Your task to perform on an android device: toggle wifi Image 0: 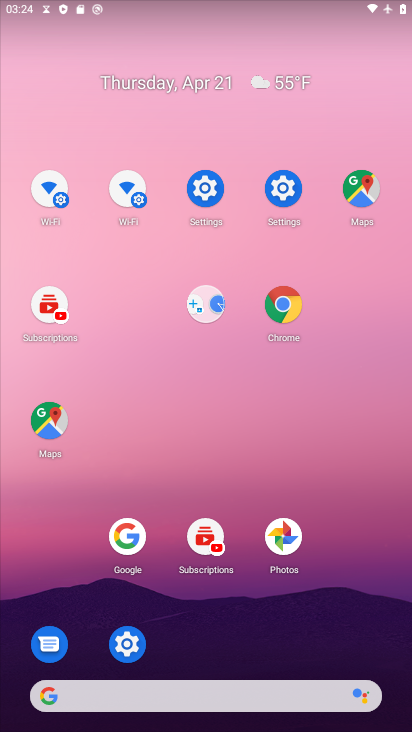
Step 0: drag from (241, 507) to (83, 86)
Your task to perform on an android device: toggle wifi Image 1: 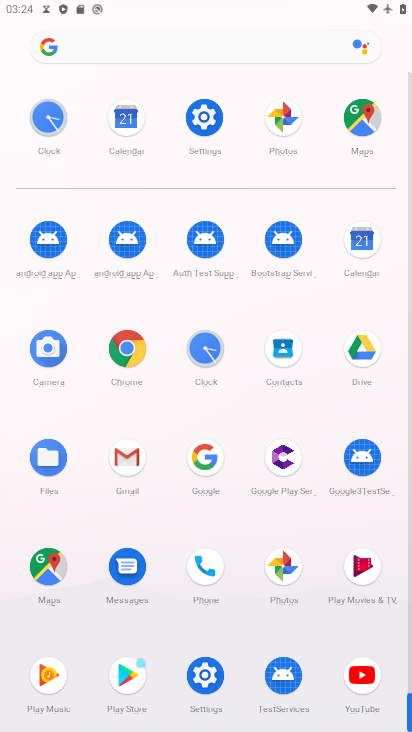
Step 1: click (197, 119)
Your task to perform on an android device: toggle wifi Image 2: 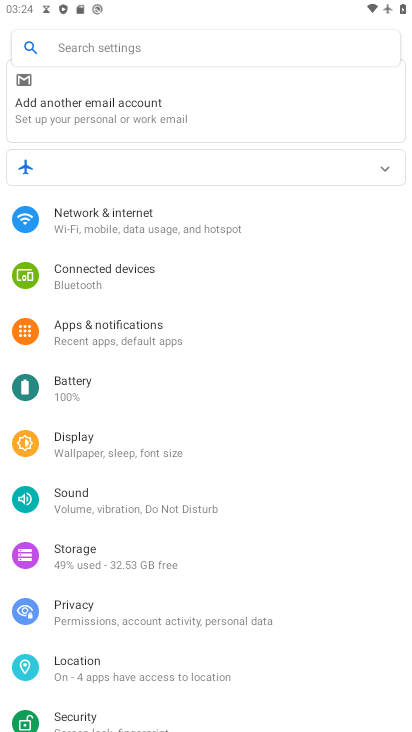
Step 2: click (112, 202)
Your task to perform on an android device: toggle wifi Image 3: 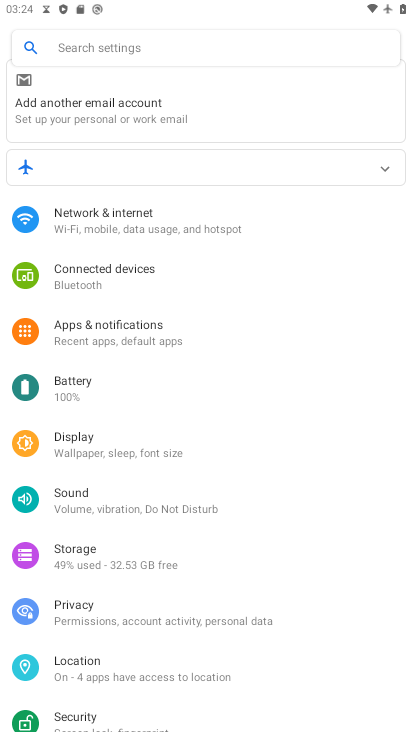
Step 3: click (120, 208)
Your task to perform on an android device: toggle wifi Image 4: 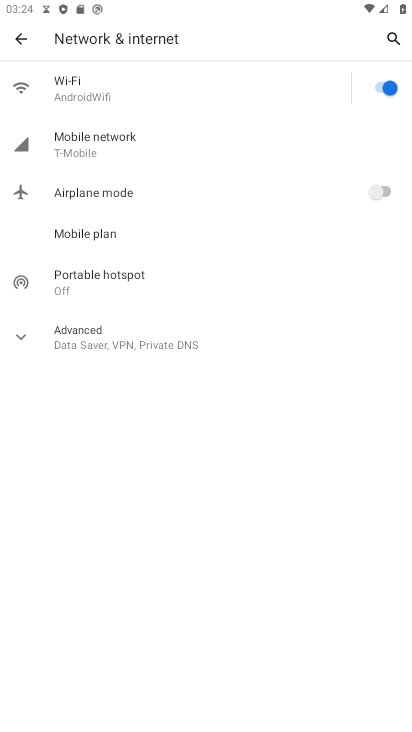
Step 4: click (387, 88)
Your task to perform on an android device: toggle wifi Image 5: 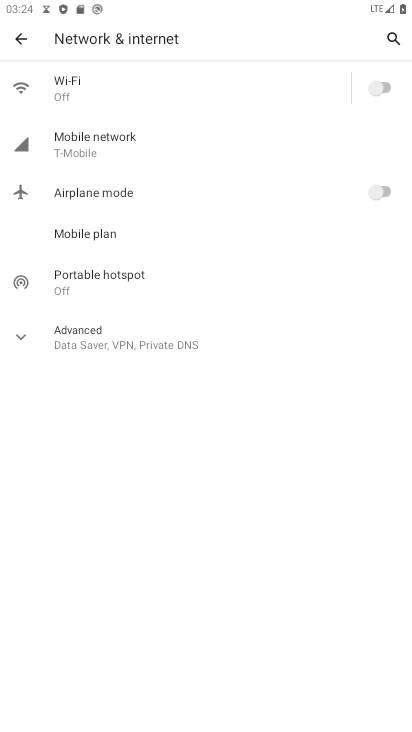
Step 5: task complete